Your task to perform on an android device: create a new album in the google photos Image 0: 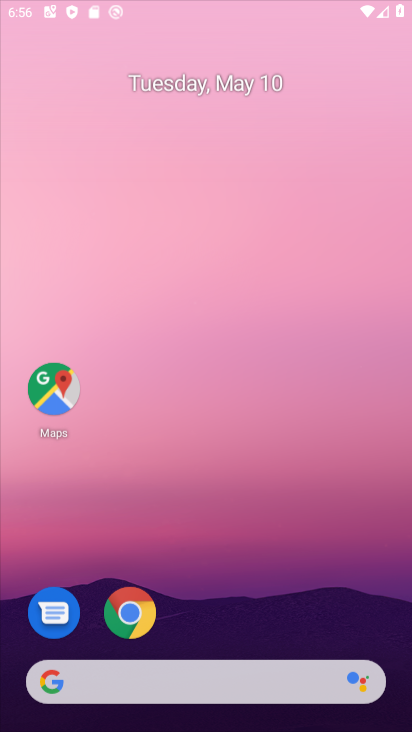
Step 0: click (129, 152)
Your task to perform on an android device: create a new album in the google photos Image 1: 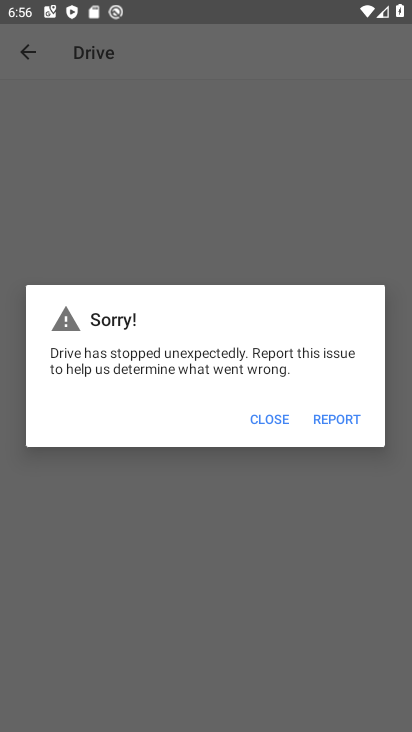
Step 1: press home button
Your task to perform on an android device: create a new album in the google photos Image 2: 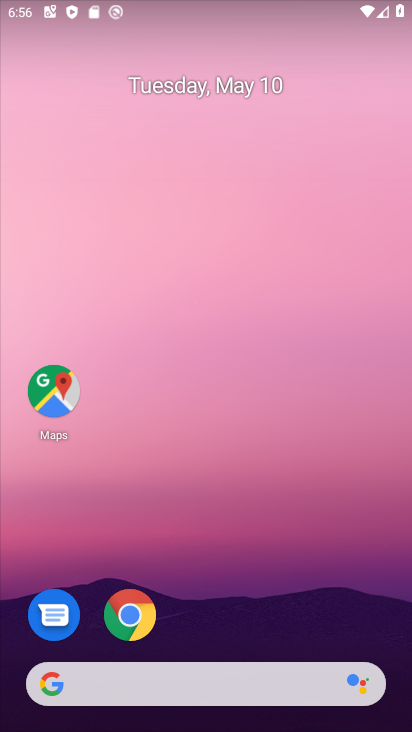
Step 2: drag from (233, 505) to (125, 131)
Your task to perform on an android device: create a new album in the google photos Image 3: 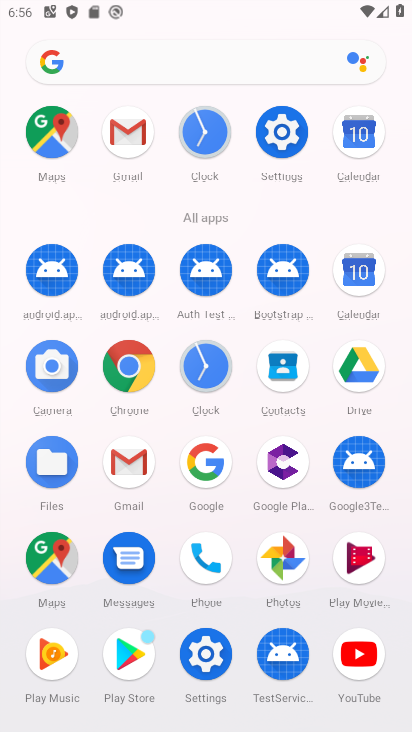
Step 3: click (284, 561)
Your task to perform on an android device: create a new album in the google photos Image 4: 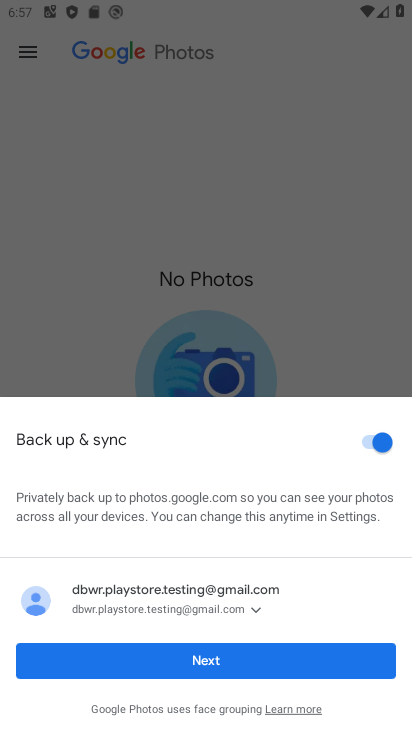
Step 4: click (222, 668)
Your task to perform on an android device: create a new album in the google photos Image 5: 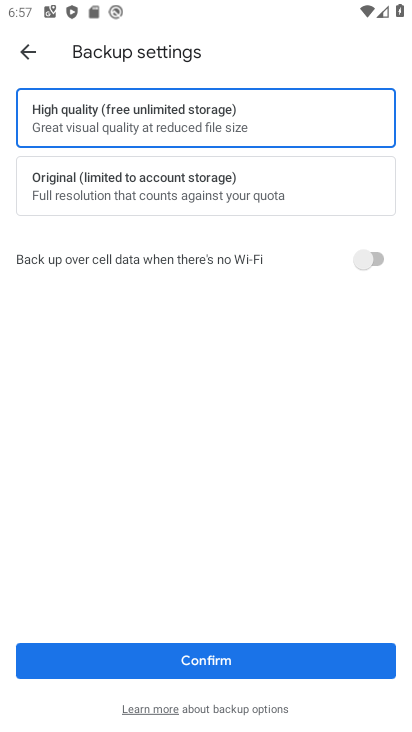
Step 5: click (222, 668)
Your task to perform on an android device: create a new album in the google photos Image 6: 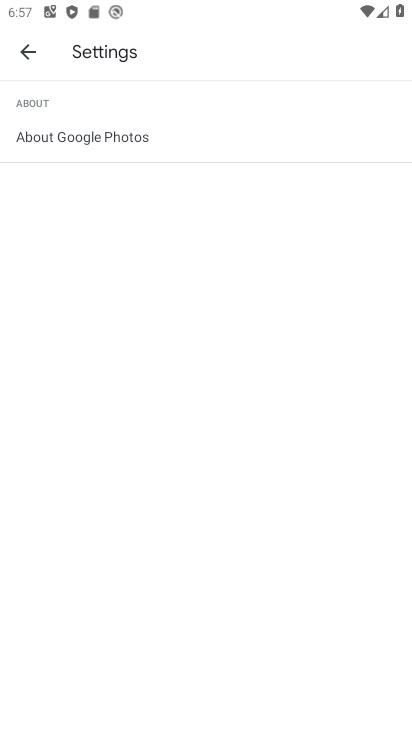
Step 6: click (22, 49)
Your task to perform on an android device: create a new album in the google photos Image 7: 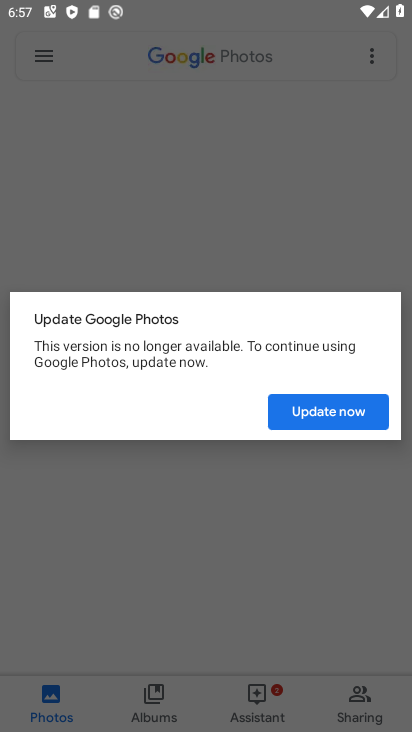
Step 7: click (309, 413)
Your task to perform on an android device: create a new album in the google photos Image 8: 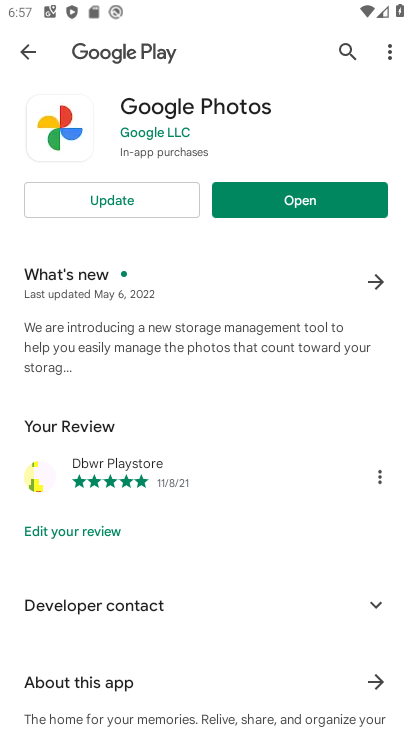
Step 8: click (159, 200)
Your task to perform on an android device: create a new album in the google photos Image 9: 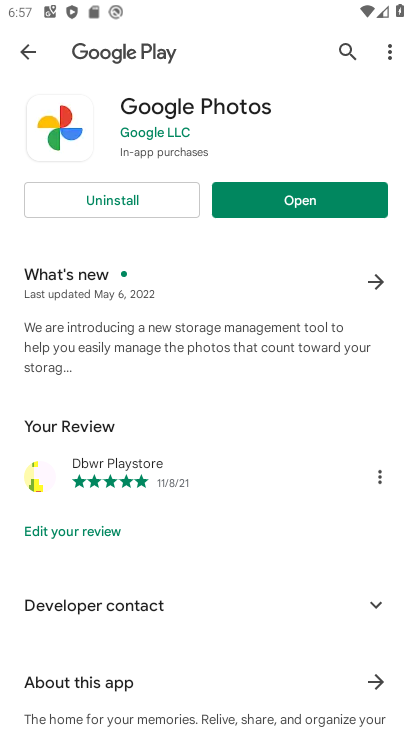
Step 9: click (257, 200)
Your task to perform on an android device: create a new album in the google photos Image 10: 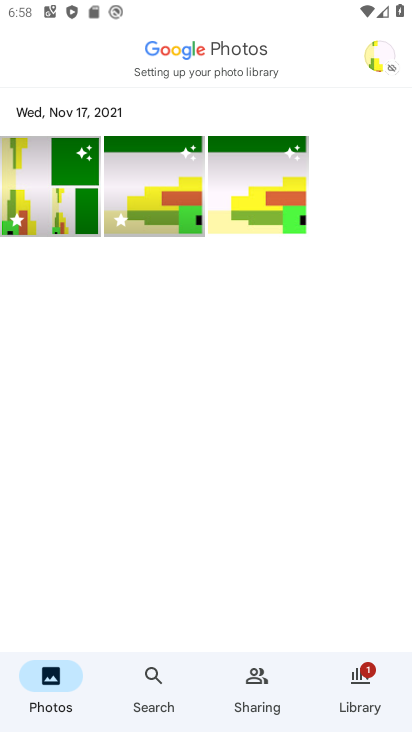
Step 10: click (343, 680)
Your task to perform on an android device: create a new album in the google photos Image 11: 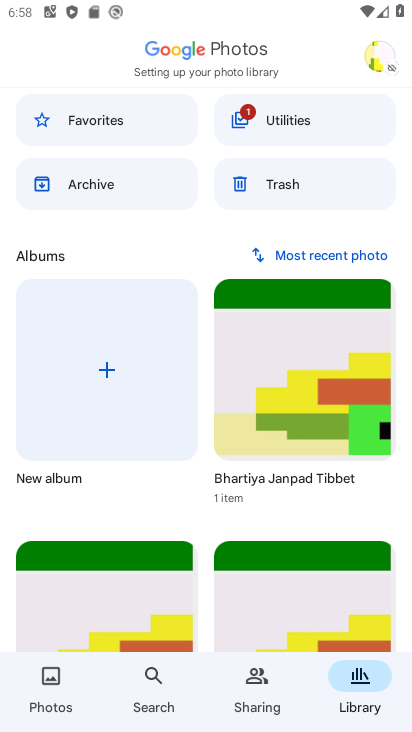
Step 11: click (107, 368)
Your task to perform on an android device: create a new album in the google photos Image 12: 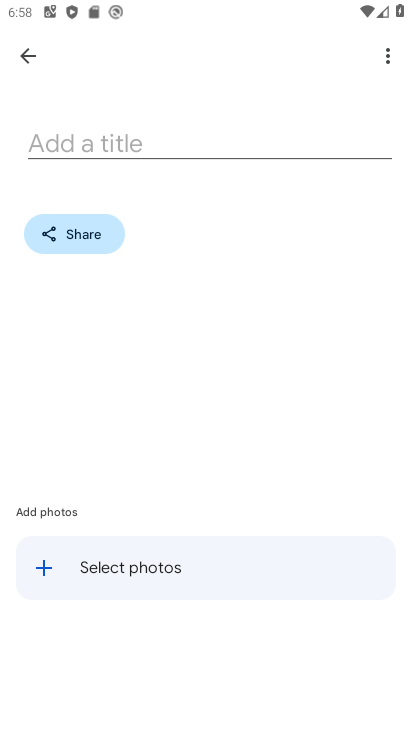
Step 12: click (79, 141)
Your task to perform on an android device: create a new album in the google photos Image 13: 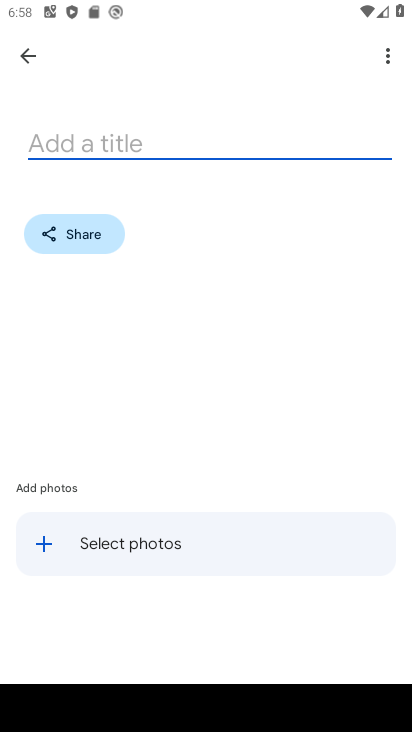
Step 13: type "jais"
Your task to perform on an android device: create a new album in the google photos Image 14: 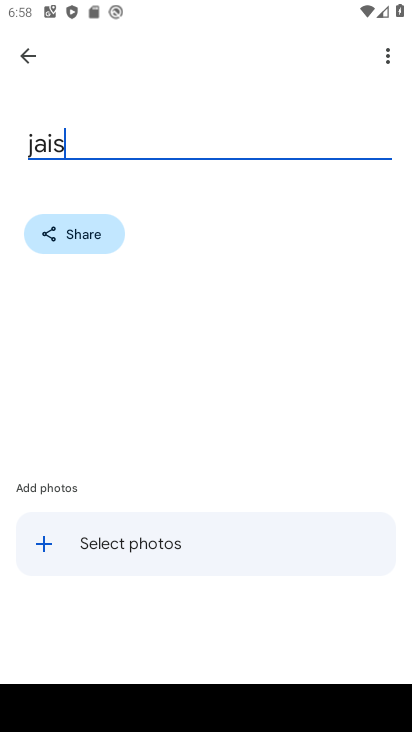
Step 14: drag from (163, 332) to (123, 9)
Your task to perform on an android device: create a new album in the google photos Image 15: 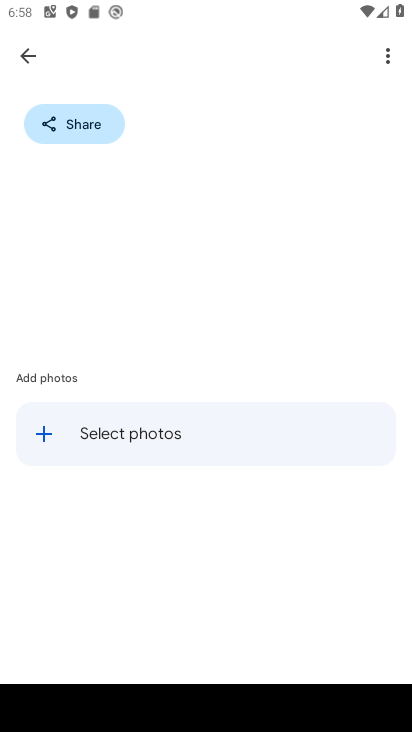
Step 15: click (45, 438)
Your task to perform on an android device: create a new album in the google photos Image 16: 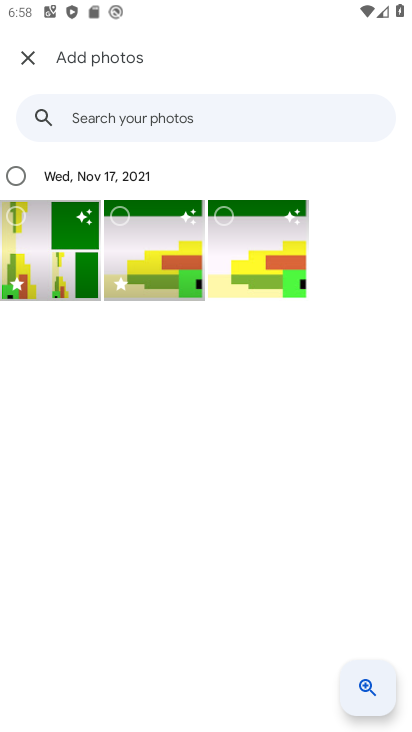
Step 16: click (142, 243)
Your task to perform on an android device: create a new album in the google photos Image 17: 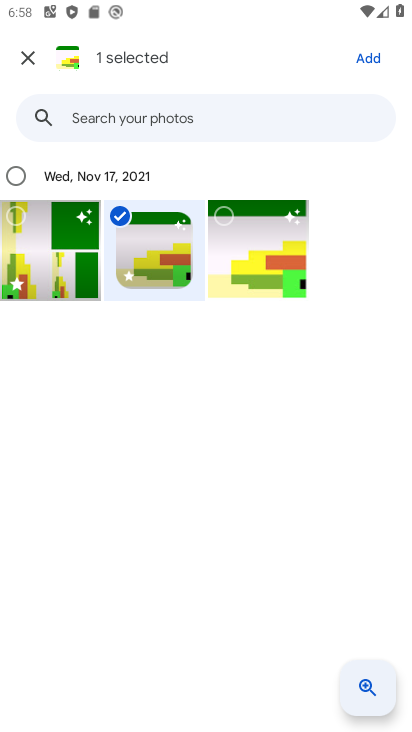
Step 17: click (363, 53)
Your task to perform on an android device: create a new album in the google photos Image 18: 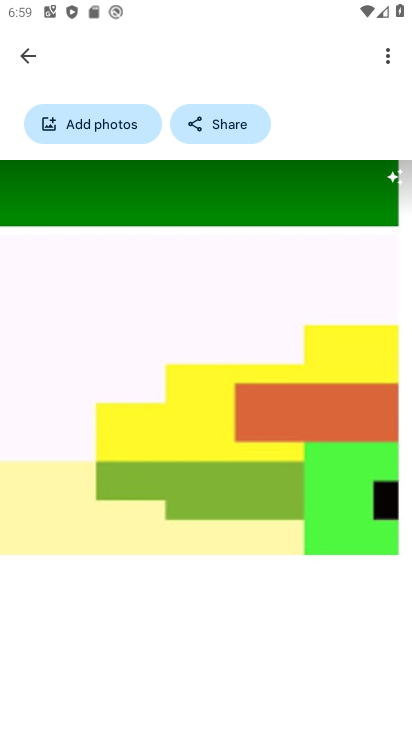
Step 18: task complete